Your task to perform on an android device: Show the shopping cart on amazon.com. Image 0: 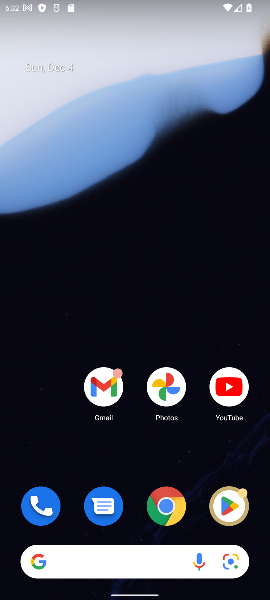
Step 0: click (166, 503)
Your task to perform on an android device: Show the shopping cart on amazon.com. Image 1: 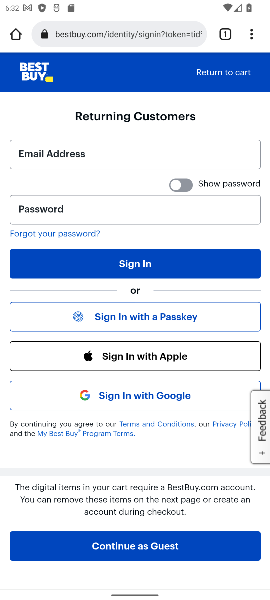
Step 1: click (65, 33)
Your task to perform on an android device: Show the shopping cart on amazon.com. Image 2: 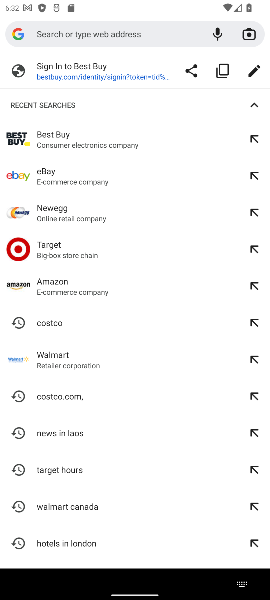
Step 2: type "amazon"
Your task to perform on an android device: Show the shopping cart on amazon.com. Image 3: 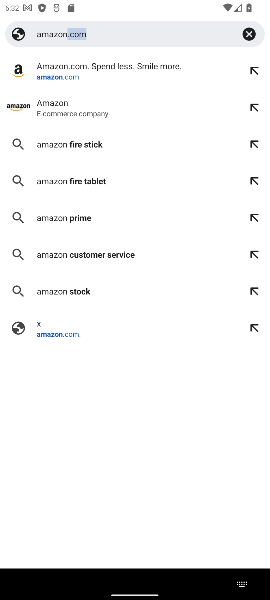
Step 3: click (146, 69)
Your task to perform on an android device: Show the shopping cart on amazon.com. Image 4: 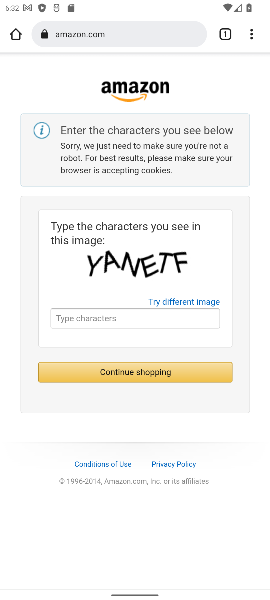
Step 4: click (85, 320)
Your task to perform on an android device: Show the shopping cart on amazon.com. Image 5: 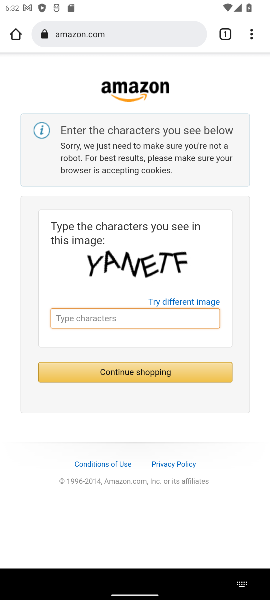
Step 5: type "YANETF"
Your task to perform on an android device: Show the shopping cart on amazon.com. Image 6: 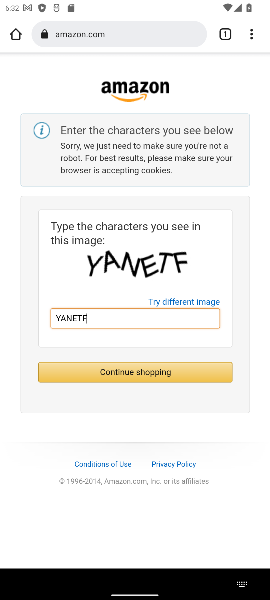
Step 6: click (163, 368)
Your task to perform on an android device: Show the shopping cart on amazon.com. Image 7: 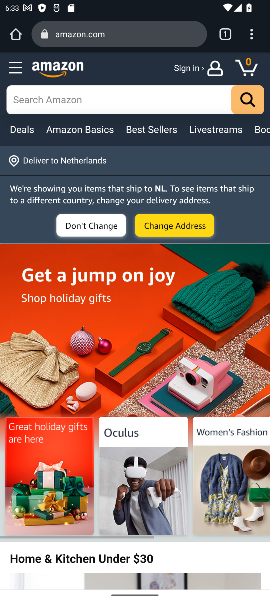
Step 7: click (247, 78)
Your task to perform on an android device: Show the shopping cart on amazon.com. Image 8: 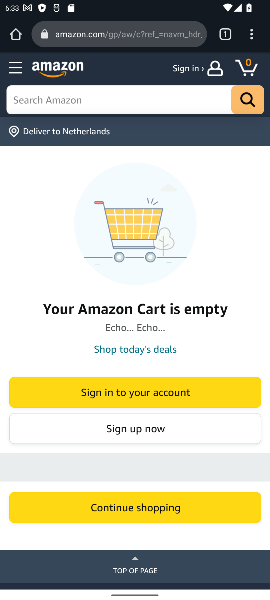
Step 8: task complete